Your task to perform on an android device: Check the news Image 0: 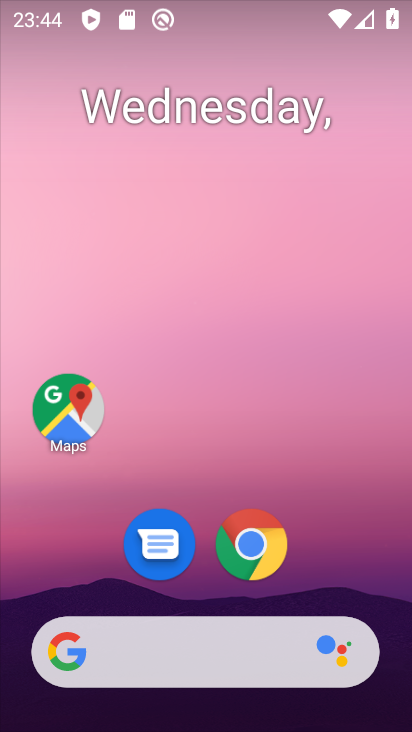
Step 0: click (261, 560)
Your task to perform on an android device: Check the news Image 1: 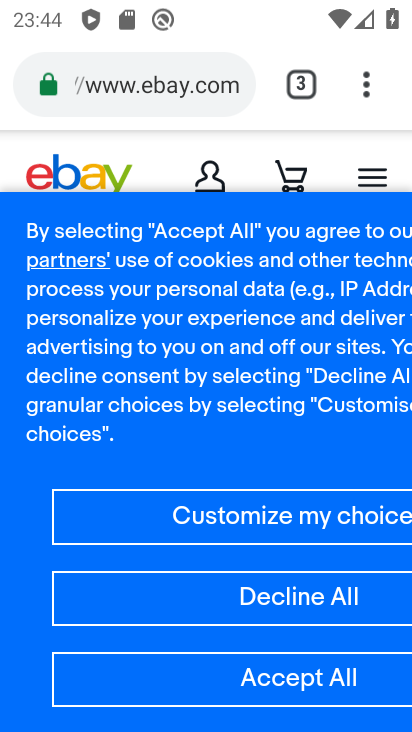
Step 1: click (116, 74)
Your task to perform on an android device: Check the news Image 2: 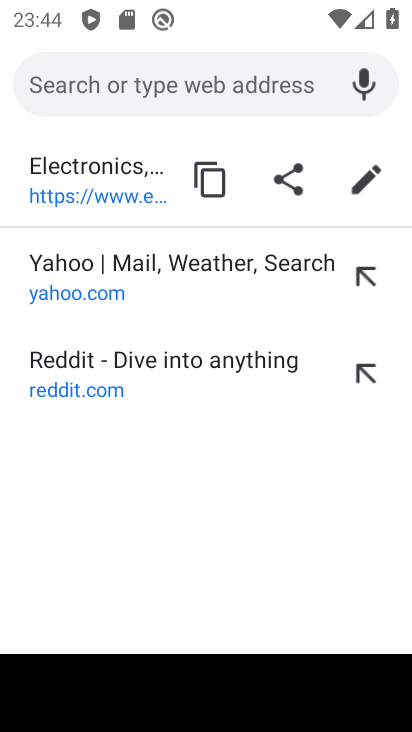
Step 2: click (212, 82)
Your task to perform on an android device: Check the news Image 3: 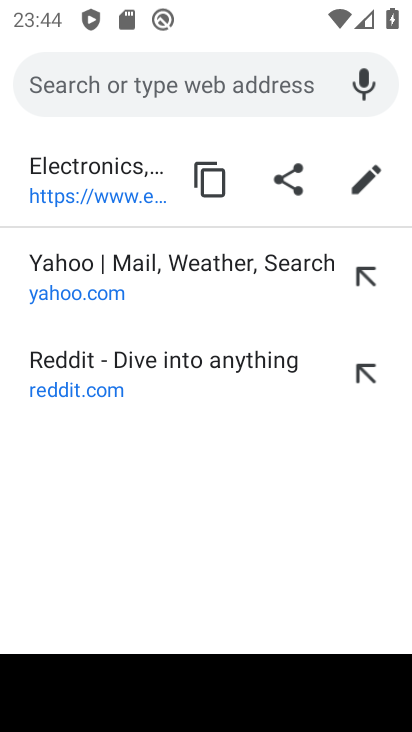
Step 3: type "news"
Your task to perform on an android device: Check the news Image 4: 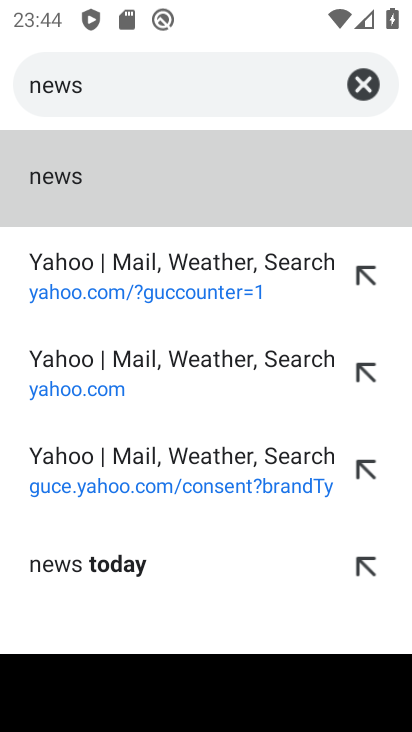
Step 4: click (112, 202)
Your task to perform on an android device: Check the news Image 5: 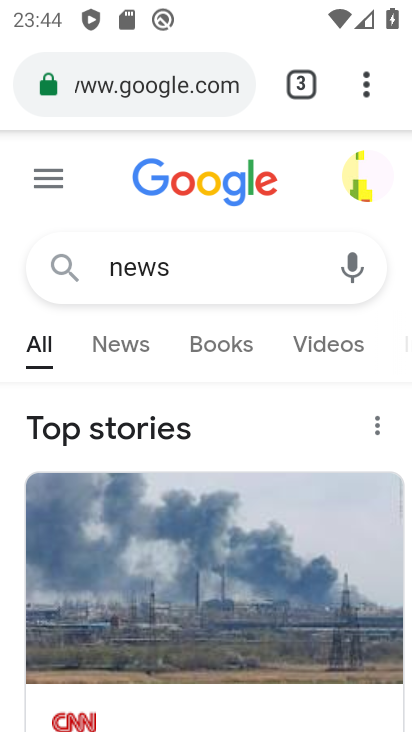
Step 5: task complete